Your task to perform on an android device: Open Chrome and go to settings Image 0: 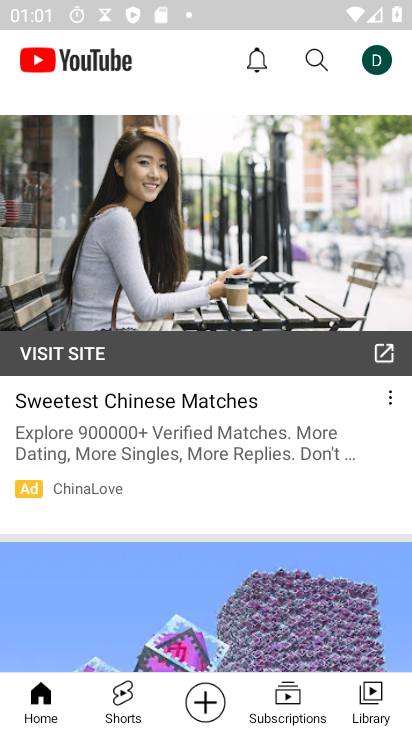
Step 0: drag from (301, 222) to (207, 542)
Your task to perform on an android device: Open Chrome and go to settings Image 1: 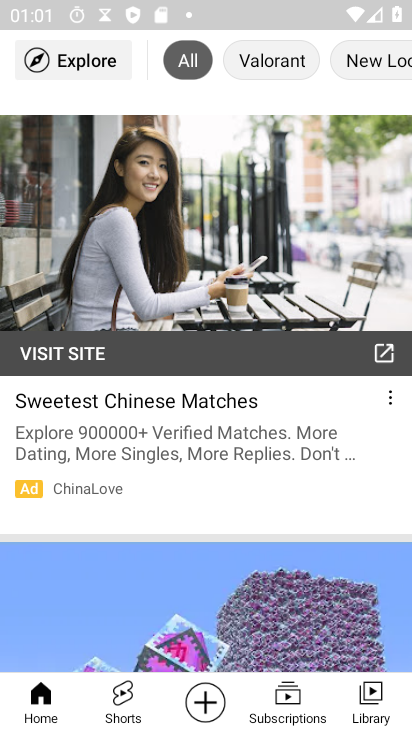
Step 1: drag from (170, 431) to (157, 468)
Your task to perform on an android device: Open Chrome and go to settings Image 2: 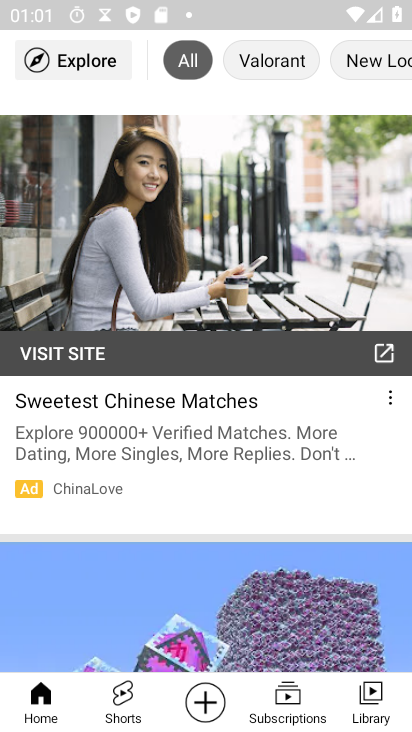
Step 2: drag from (254, 223) to (216, 513)
Your task to perform on an android device: Open Chrome and go to settings Image 3: 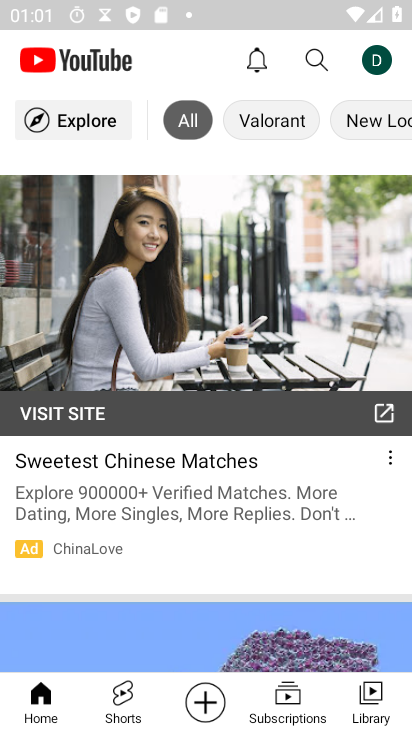
Step 3: press home button
Your task to perform on an android device: Open Chrome and go to settings Image 4: 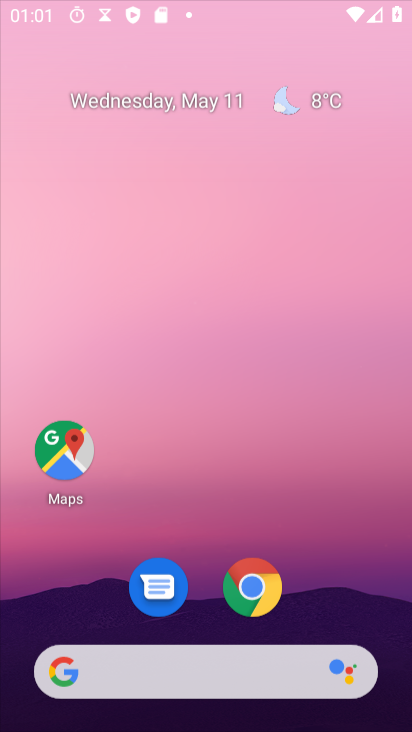
Step 4: press home button
Your task to perform on an android device: Open Chrome and go to settings Image 5: 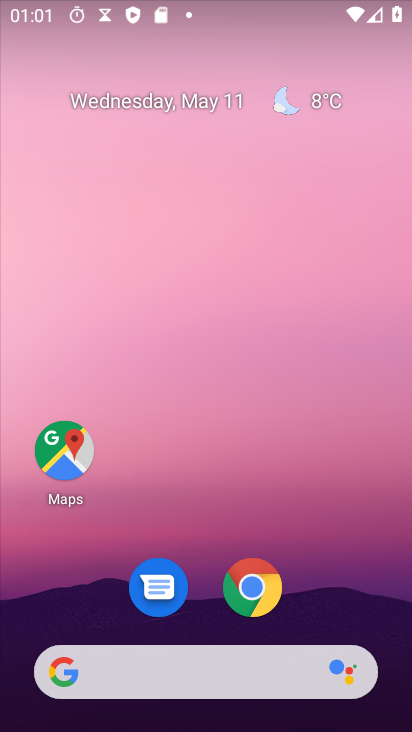
Step 5: drag from (307, 581) to (125, 175)
Your task to perform on an android device: Open Chrome and go to settings Image 6: 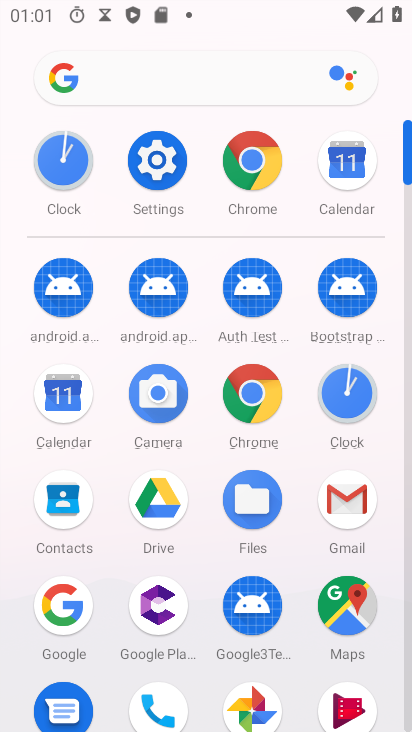
Step 6: click (250, 162)
Your task to perform on an android device: Open Chrome and go to settings Image 7: 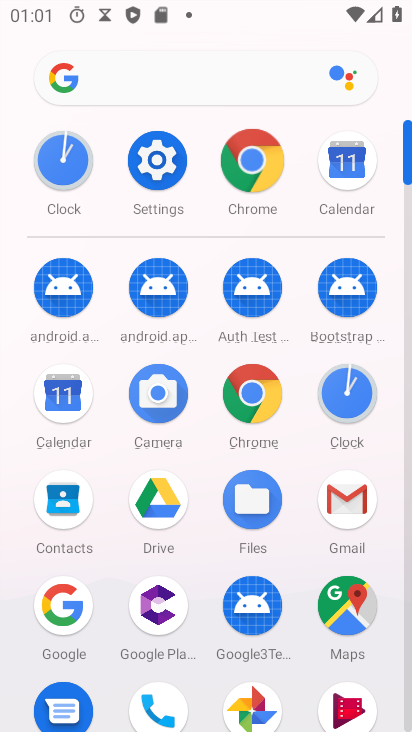
Step 7: click (252, 166)
Your task to perform on an android device: Open Chrome and go to settings Image 8: 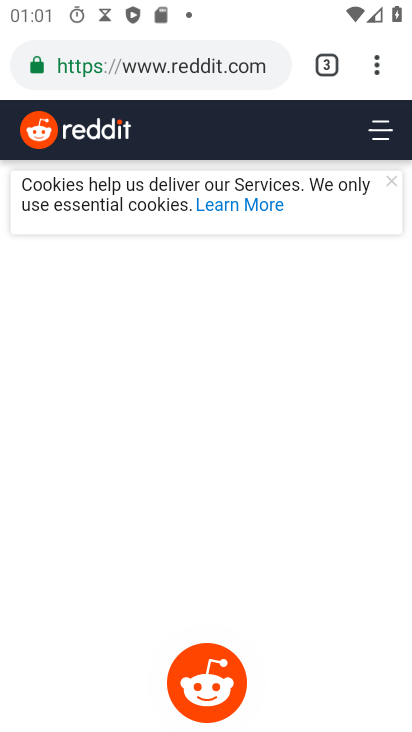
Step 8: click (364, 68)
Your task to perform on an android device: Open Chrome and go to settings Image 9: 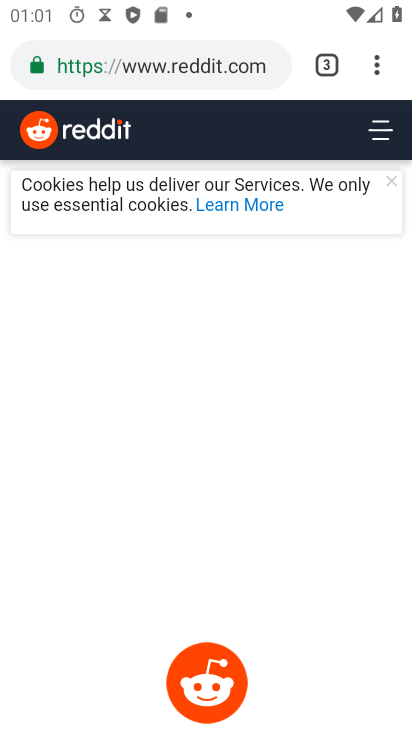
Step 9: click (356, 76)
Your task to perform on an android device: Open Chrome and go to settings Image 10: 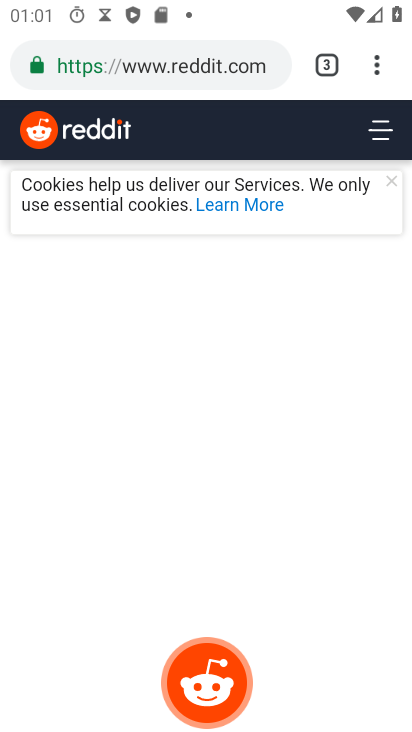
Step 10: click (386, 51)
Your task to perform on an android device: Open Chrome and go to settings Image 11: 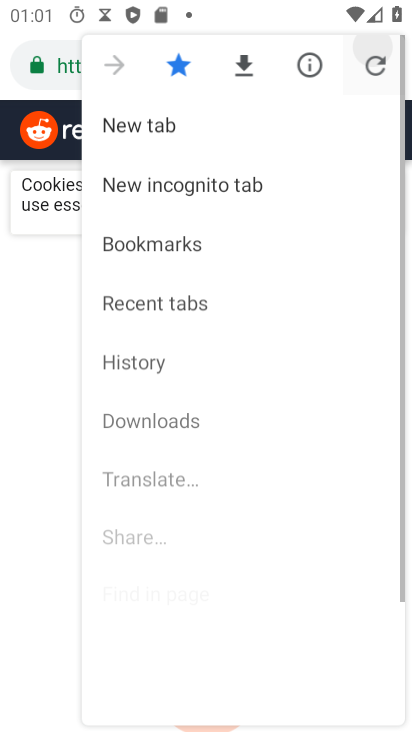
Step 11: click (379, 60)
Your task to perform on an android device: Open Chrome and go to settings Image 12: 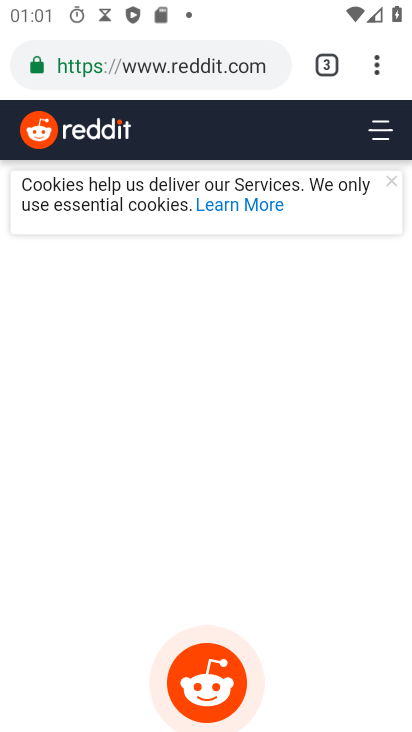
Step 12: drag from (377, 71) to (148, 135)
Your task to perform on an android device: Open Chrome and go to settings Image 13: 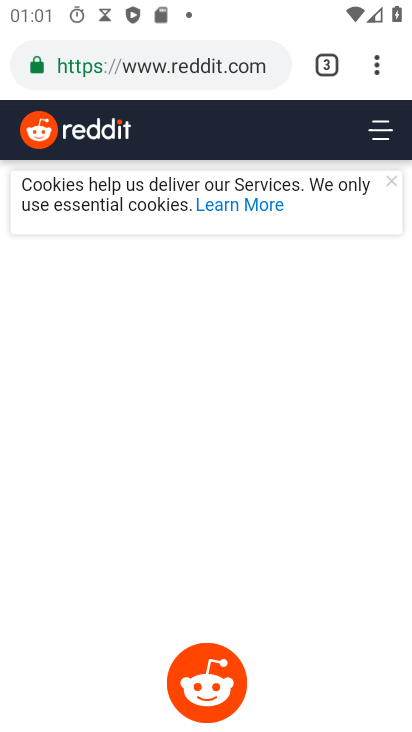
Step 13: click (148, 135)
Your task to perform on an android device: Open Chrome and go to settings Image 14: 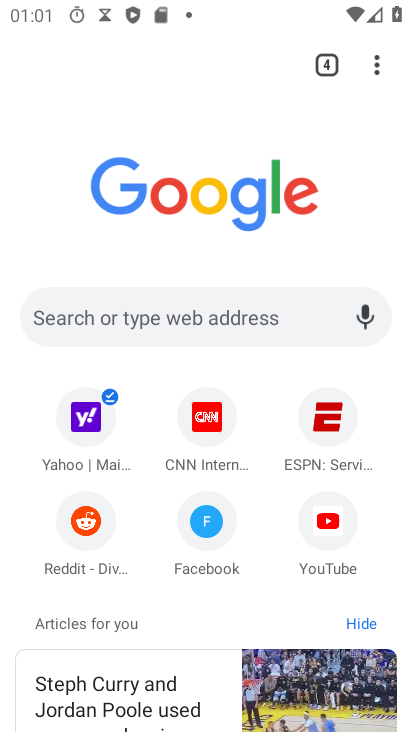
Step 14: drag from (376, 65) to (145, 554)
Your task to perform on an android device: Open Chrome and go to settings Image 15: 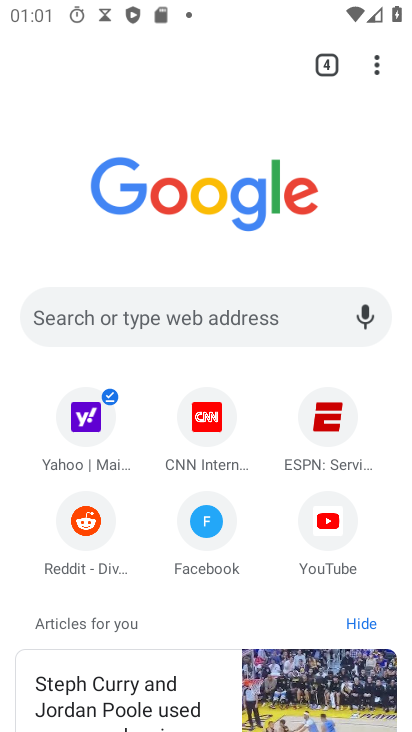
Step 15: click (146, 555)
Your task to perform on an android device: Open Chrome and go to settings Image 16: 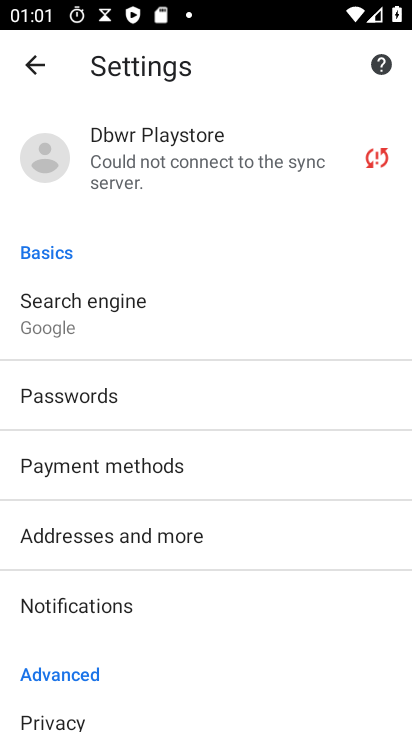
Step 16: task complete